Your task to perform on an android device: turn notification dots off Image 0: 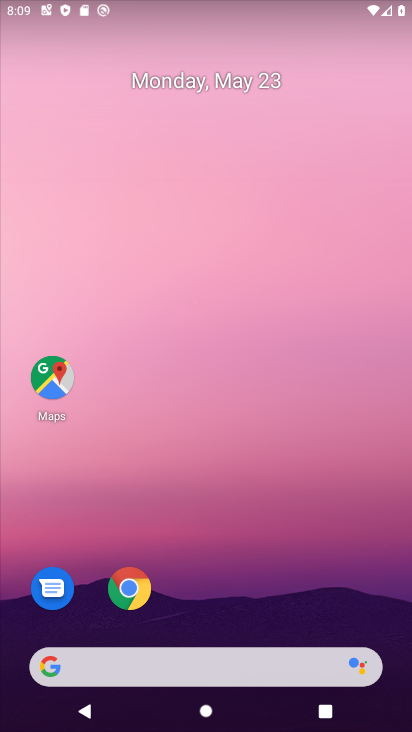
Step 0: drag from (391, 682) to (314, 164)
Your task to perform on an android device: turn notification dots off Image 1: 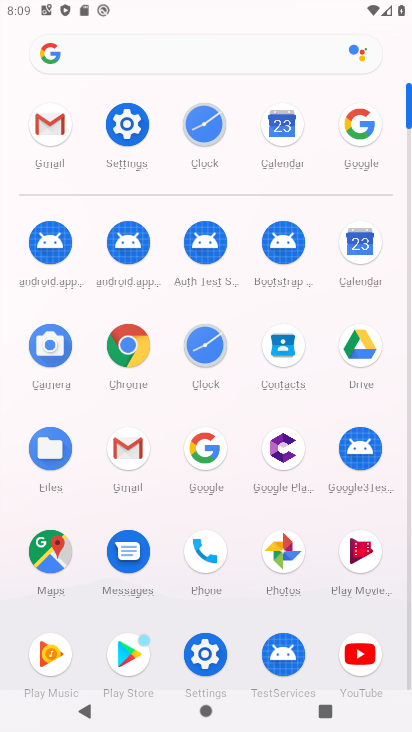
Step 1: click (128, 136)
Your task to perform on an android device: turn notification dots off Image 2: 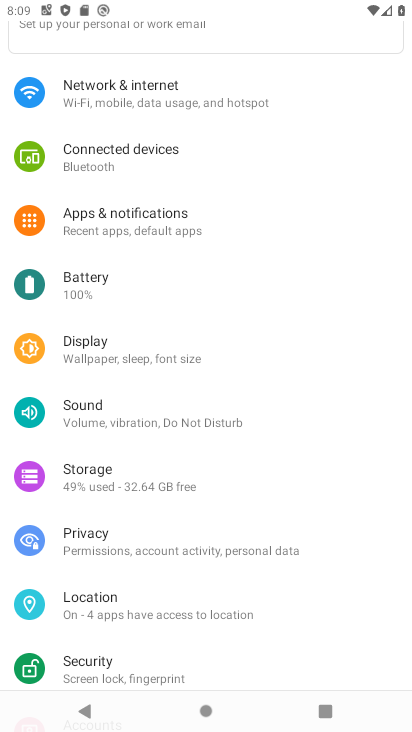
Step 2: click (130, 212)
Your task to perform on an android device: turn notification dots off Image 3: 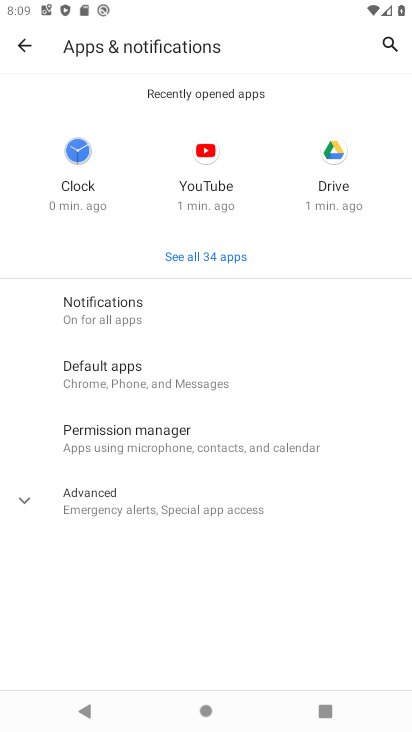
Step 3: click (79, 302)
Your task to perform on an android device: turn notification dots off Image 4: 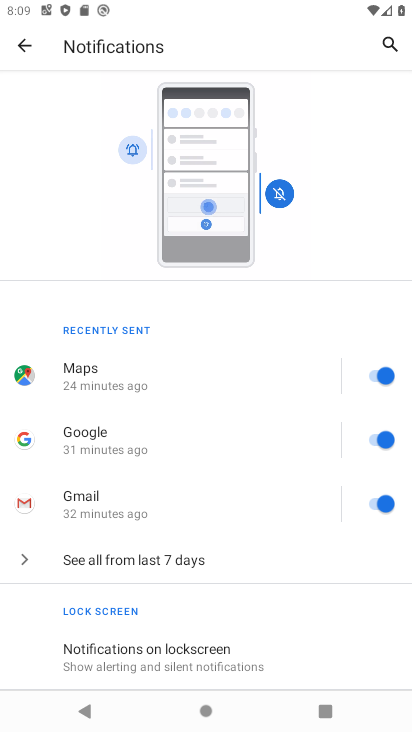
Step 4: drag from (282, 637) to (253, 208)
Your task to perform on an android device: turn notification dots off Image 5: 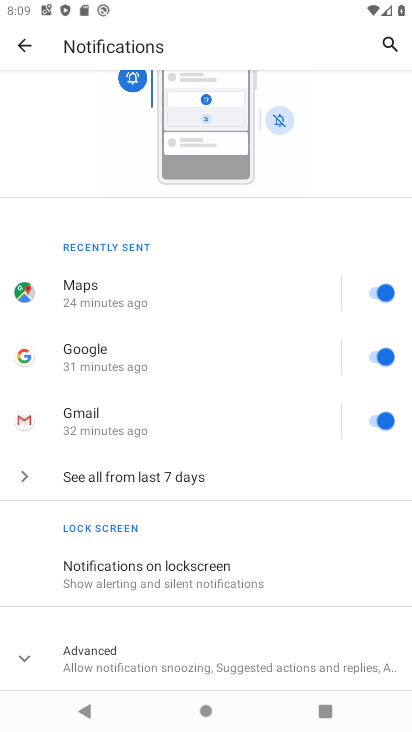
Step 5: click (11, 661)
Your task to perform on an android device: turn notification dots off Image 6: 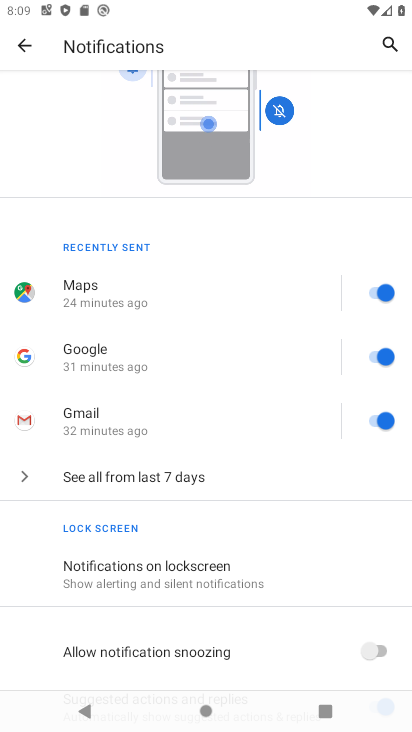
Step 6: drag from (271, 675) to (248, 331)
Your task to perform on an android device: turn notification dots off Image 7: 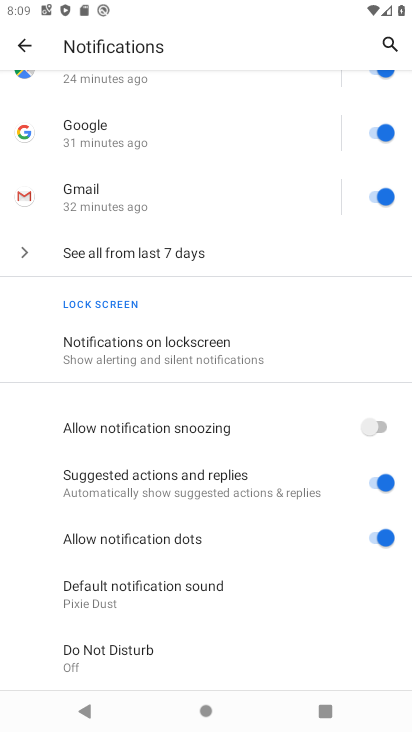
Step 7: click (374, 535)
Your task to perform on an android device: turn notification dots off Image 8: 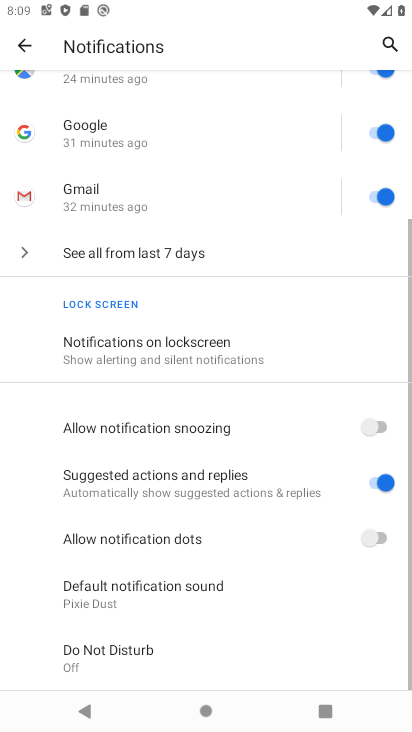
Step 8: task complete